Your task to perform on an android device: all mails in gmail Image 0: 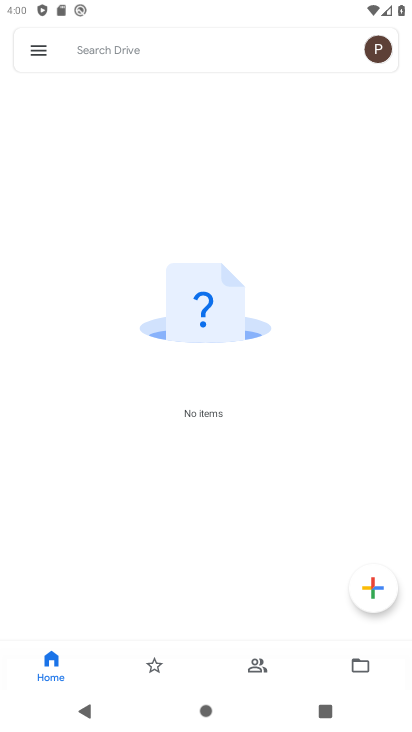
Step 0: press home button
Your task to perform on an android device: all mails in gmail Image 1: 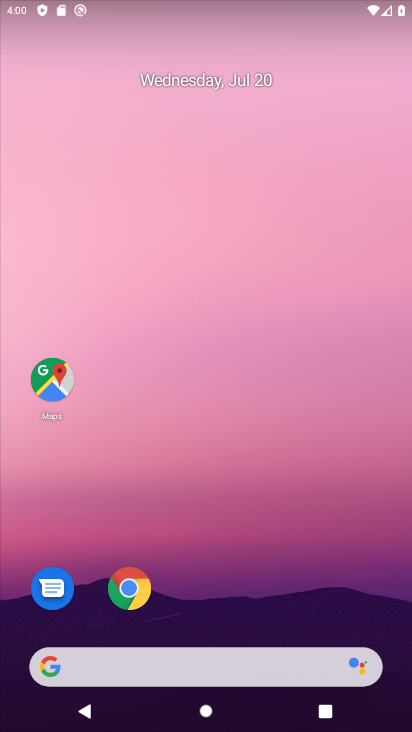
Step 1: drag from (203, 613) to (278, 102)
Your task to perform on an android device: all mails in gmail Image 2: 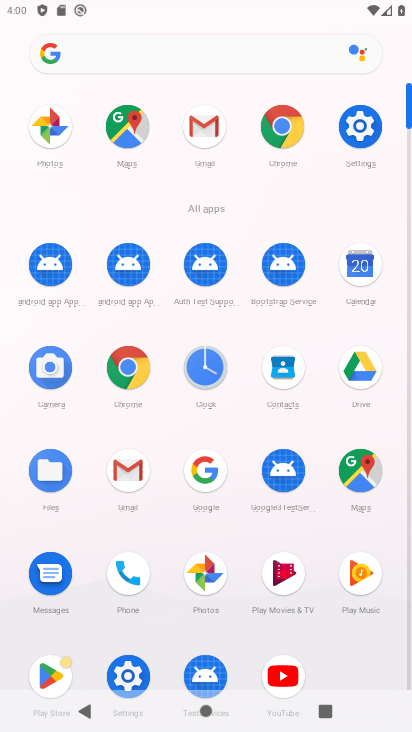
Step 2: click (127, 468)
Your task to perform on an android device: all mails in gmail Image 3: 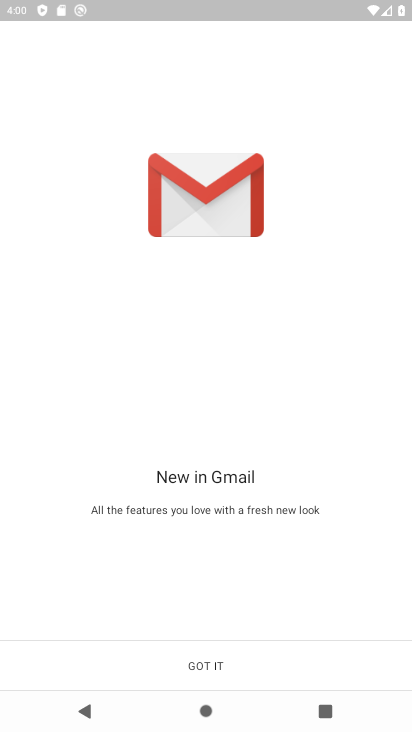
Step 3: click (207, 663)
Your task to perform on an android device: all mails in gmail Image 4: 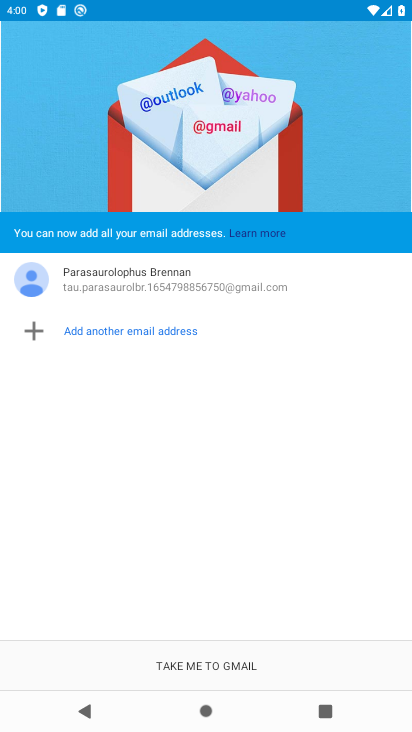
Step 4: click (207, 663)
Your task to perform on an android device: all mails in gmail Image 5: 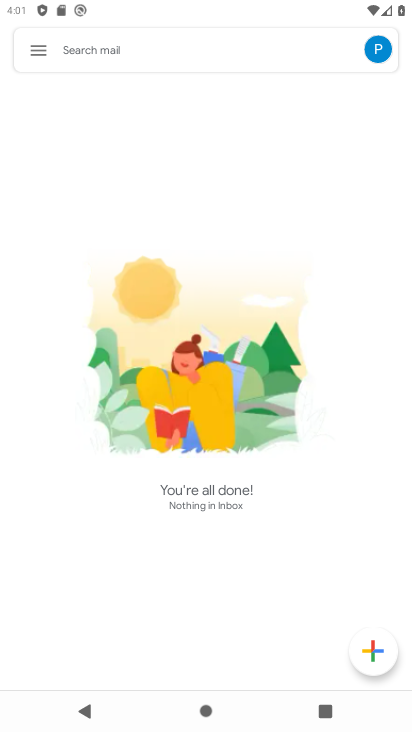
Step 5: click (32, 51)
Your task to perform on an android device: all mails in gmail Image 6: 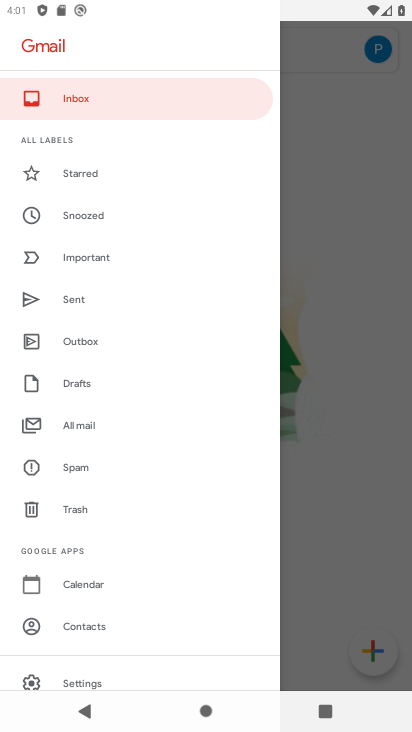
Step 6: click (96, 419)
Your task to perform on an android device: all mails in gmail Image 7: 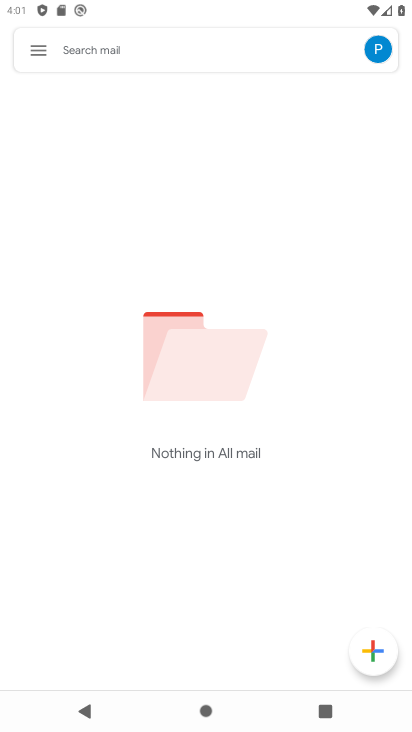
Step 7: task complete